Your task to perform on an android device: read, delete, or share a saved page in the chrome app Image 0: 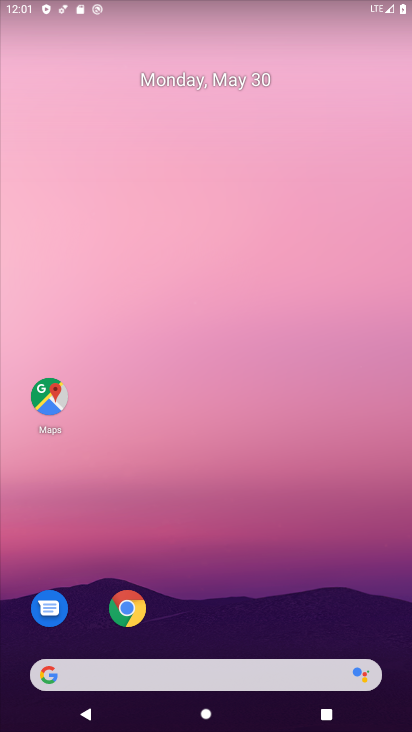
Step 0: click (137, 613)
Your task to perform on an android device: read, delete, or share a saved page in the chrome app Image 1: 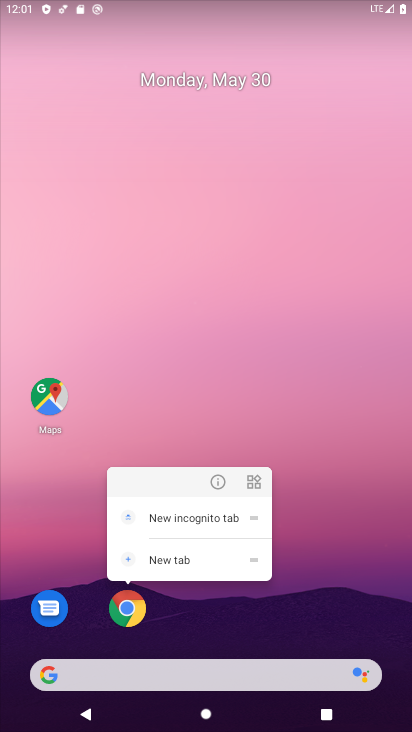
Step 1: click (136, 611)
Your task to perform on an android device: read, delete, or share a saved page in the chrome app Image 2: 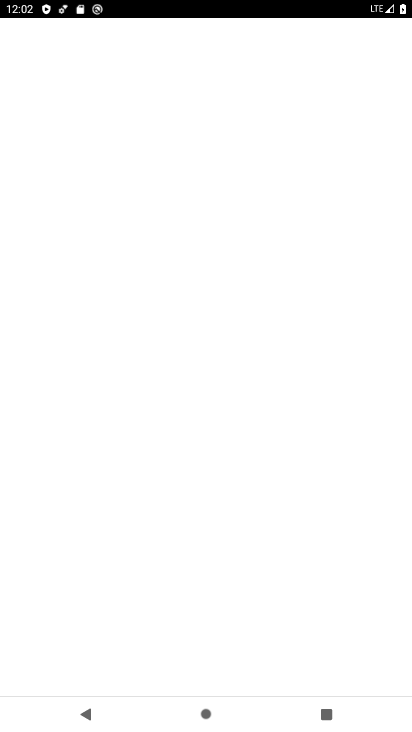
Step 2: click (132, 609)
Your task to perform on an android device: read, delete, or share a saved page in the chrome app Image 3: 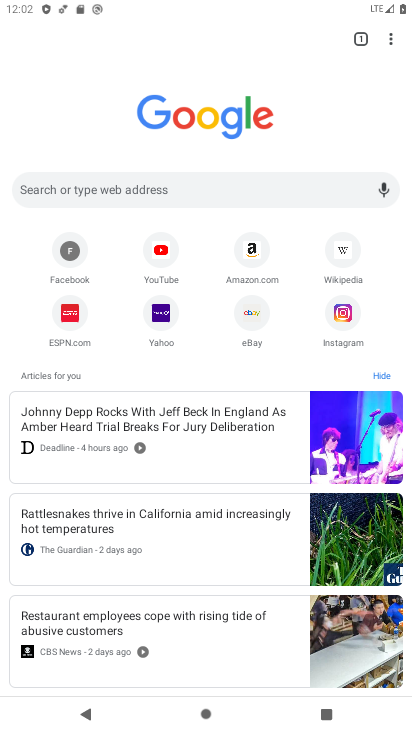
Step 3: click (394, 36)
Your task to perform on an android device: read, delete, or share a saved page in the chrome app Image 4: 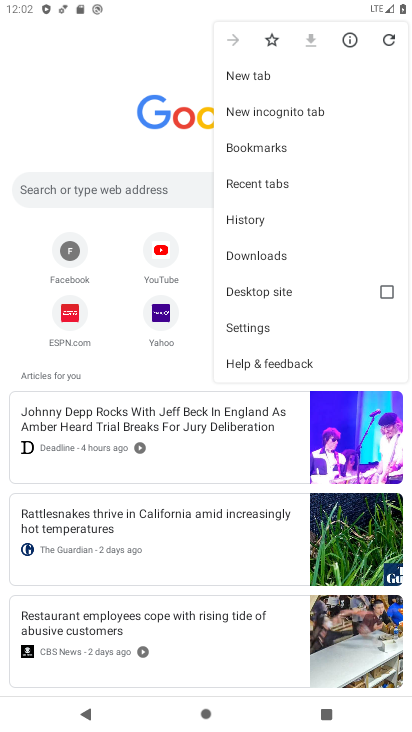
Step 4: click (244, 256)
Your task to perform on an android device: read, delete, or share a saved page in the chrome app Image 5: 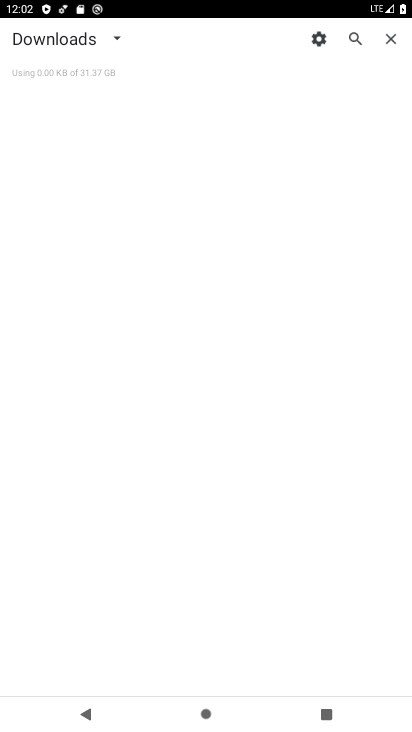
Step 5: task complete